Your task to perform on an android device: What's the weather going to be tomorrow? Image 0: 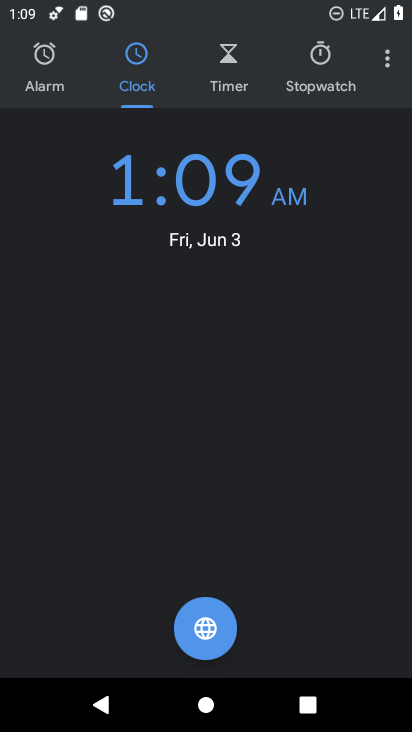
Step 0: press back button
Your task to perform on an android device: What's the weather going to be tomorrow? Image 1: 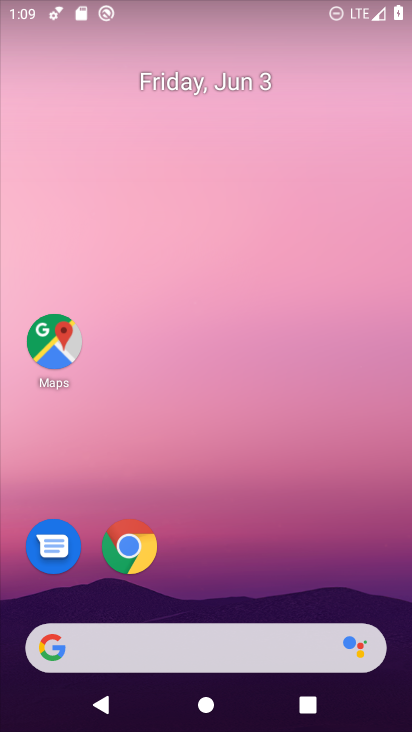
Step 1: drag from (293, 502) to (178, 85)
Your task to perform on an android device: What's the weather going to be tomorrow? Image 2: 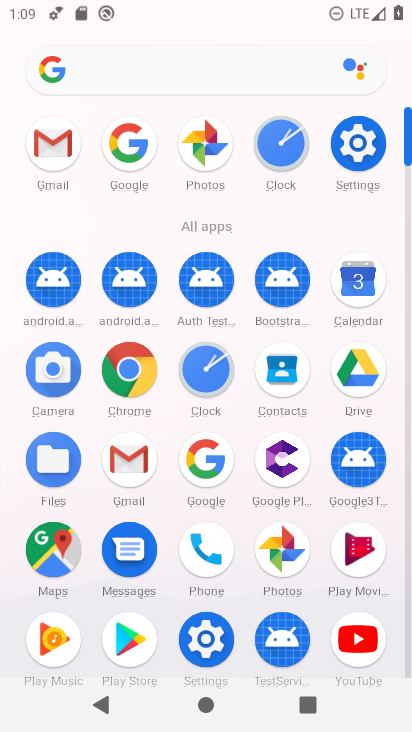
Step 2: click (126, 138)
Your task to perform on an android device: What's the weather going to be tomorrow? Image 3: 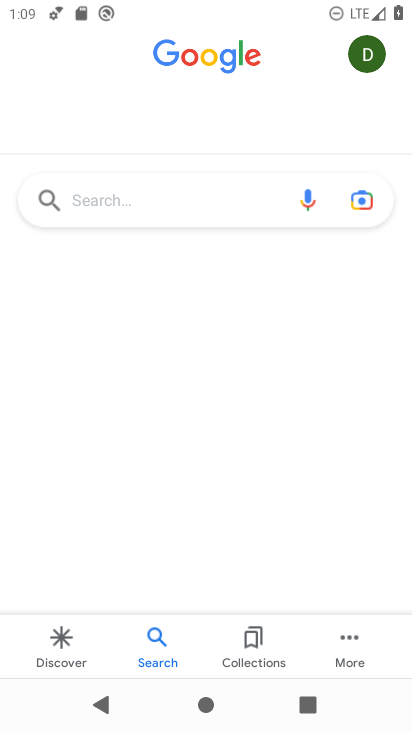
Step 3: click (135, 202)
Your task to perform on an android device: What's the weather going to be tomorrow? Image 4: 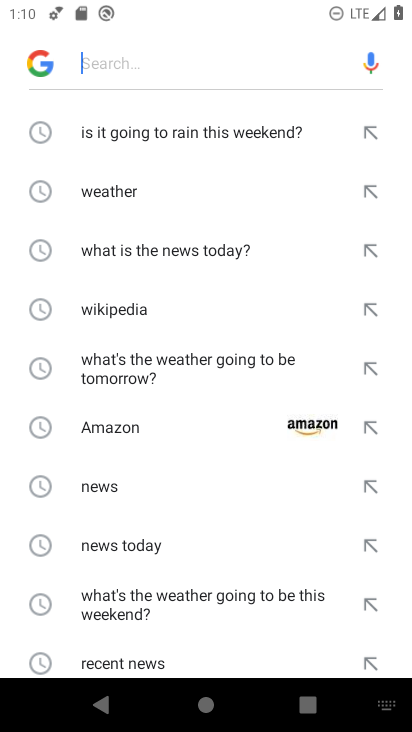
Step 4: click (226, 362)
Your task to perform on an android device: What's the weather going to be tomorrow? Image 5: 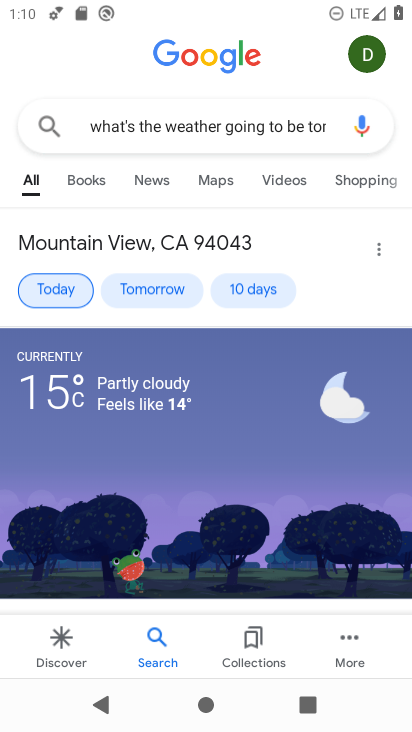
Step 5: drag from (199, 405) to (231, 283)
Your task to perform on an android device: What's the weather going to be tomorrow? Image 6: 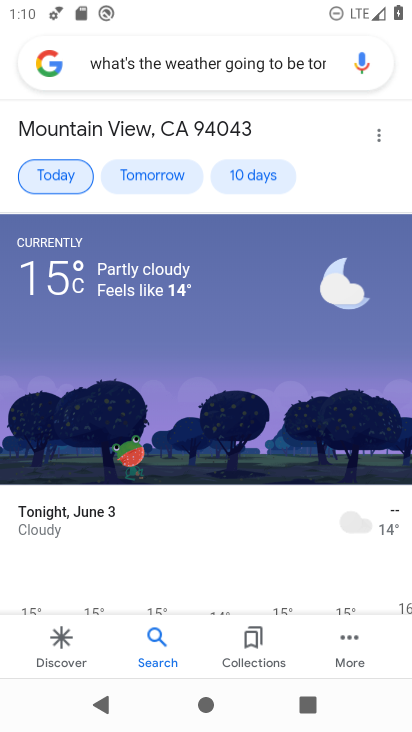
Step 6: click (156, 177)
Your task to perform on an android device: What's the weather going to be tomorrow? Image 7: 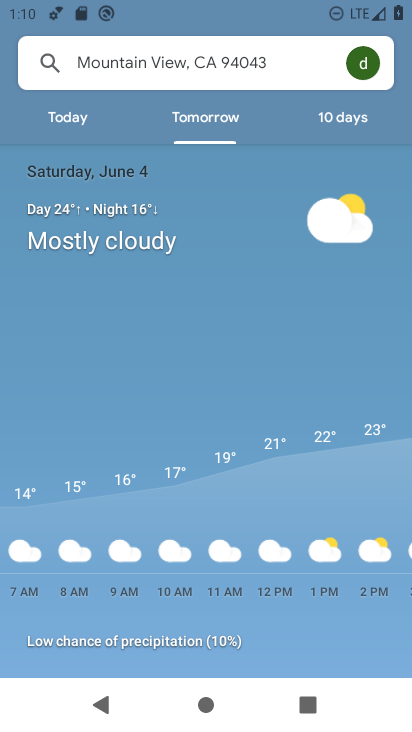
Step 7: task complete